Your task to perform on an android device: Show me the alarms in the clock app Image 0: 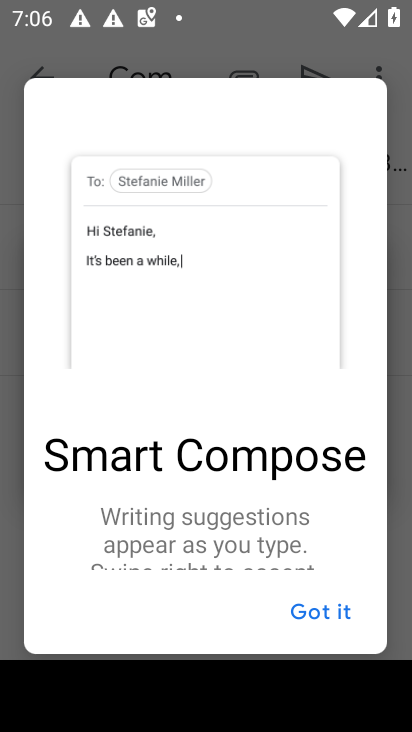
Step 0: press home button
Your task to perform on an android device: Show me the alarms in the clock app Image 1: 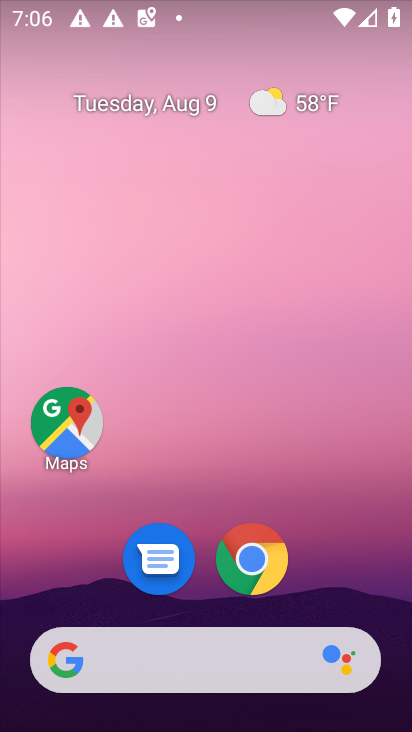
Step 1: drag from (191, 600) to (238, 260)
Your task to perform on an android device: Show me the alarms in the clock app Image 2: 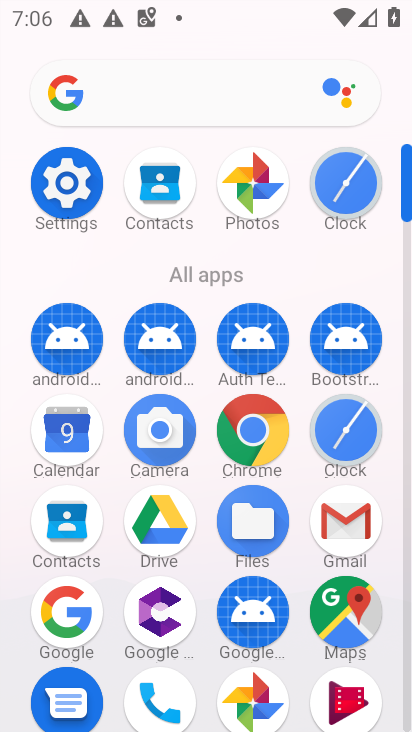
Step 2: click (346, 440)
Your task to perform on an android device: Show me the alarms in the clock app Image 3: 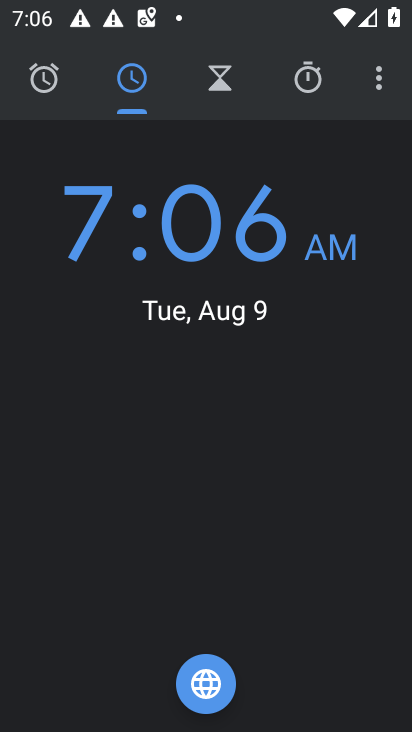
Step 3: click (40, 75)
Your task to perform on an android device: Show me the alarms in the clock app Image 4: 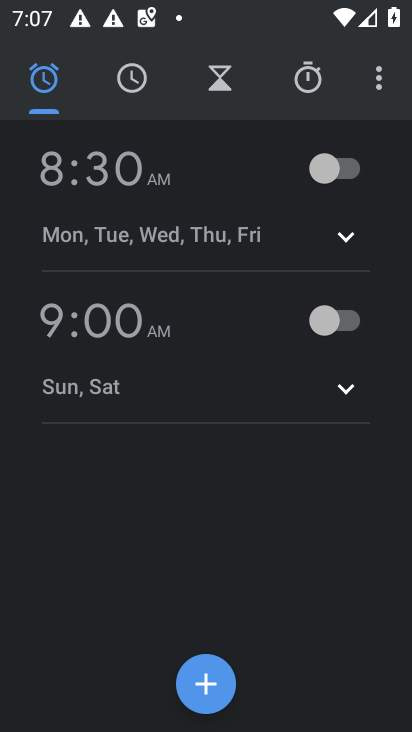
Step 4: task complete